Your task to perform on an android device: turn off airplane mode Image 0: 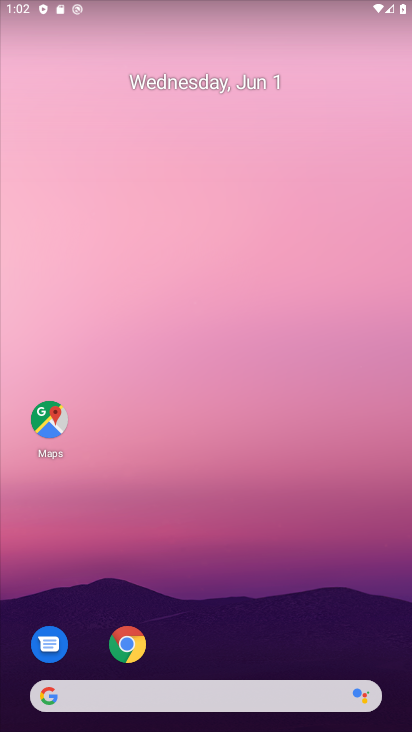
Step 0: drag from (150, 684) to (296, 213)
Your task to perform on an android device: turn off airplane mode Image 1: 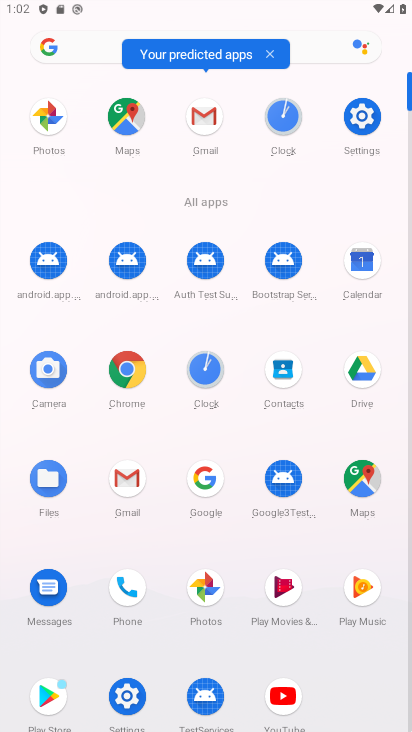
Step 1: click (365, 124)
Your task to perform on an android device: turn off airplane mode Image 2: 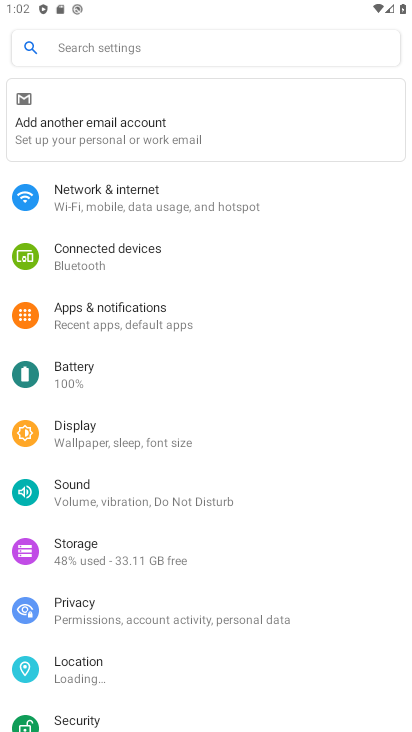
Step 2: click (123, 190)
Your task to perform on an android device: turn off airplane mode Image 3: 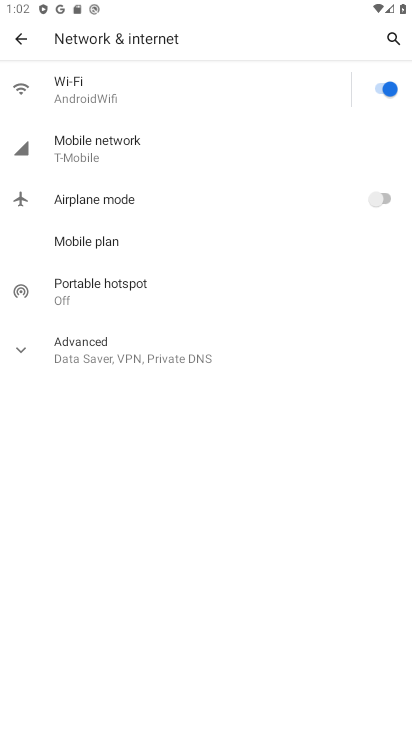
Step 3: task complete